Your task to perform on an android device: Open ESPN.com Image 0: 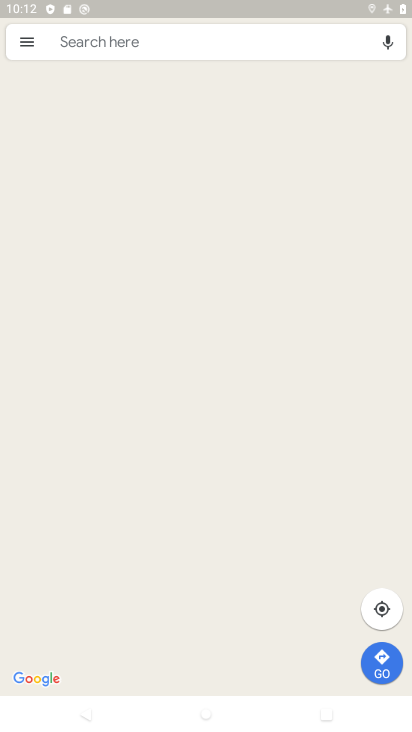
Step 0: press home button
Your task to perform on an android device: Open ESPN.com Image 1: 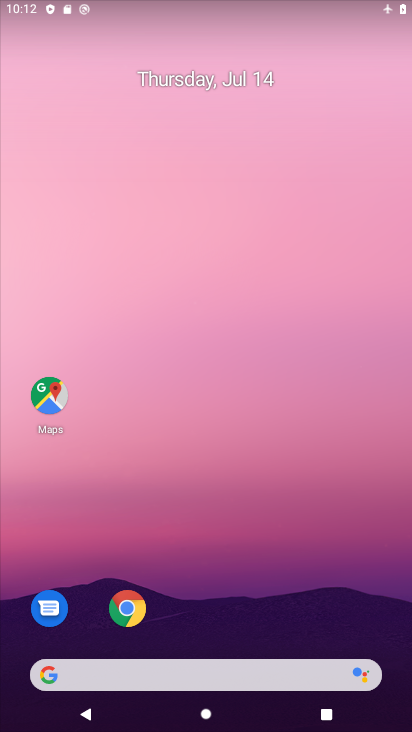
Step 1: click (131, 614)
Your task to perform on an android device: Open ESPN.com Image 2: 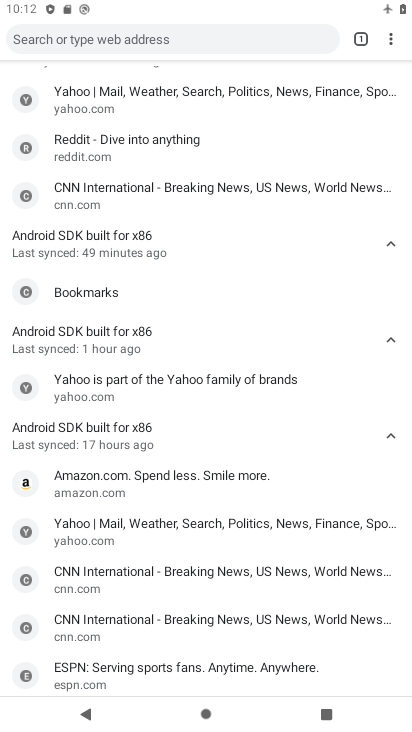
Step 2: click (184, 39)
Your task to perform on an android device: Open ESPN.com Image 3: 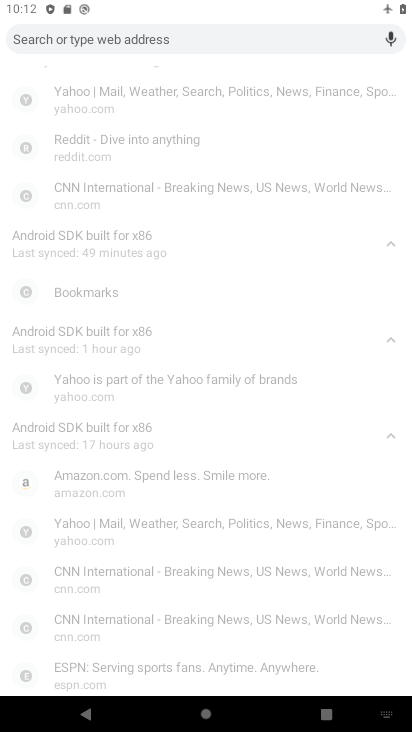
Step 3: type "ESPN.com"
Your task to perform on an android device: Open ESPN.com Image 4: 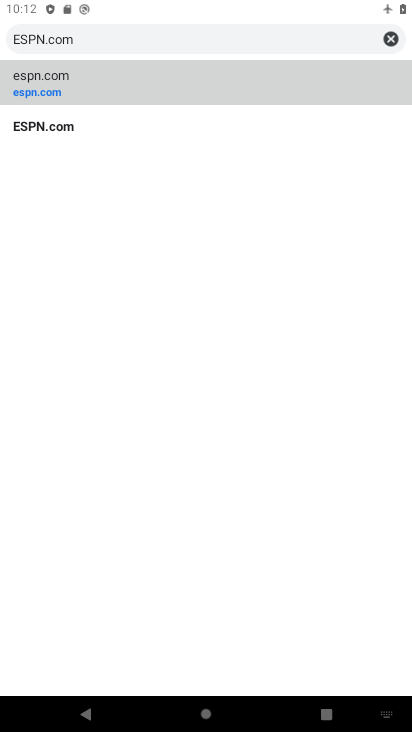
Step 4: click (96, 90)
Your task to perform on an android device: Open ESPN.com Image 5: 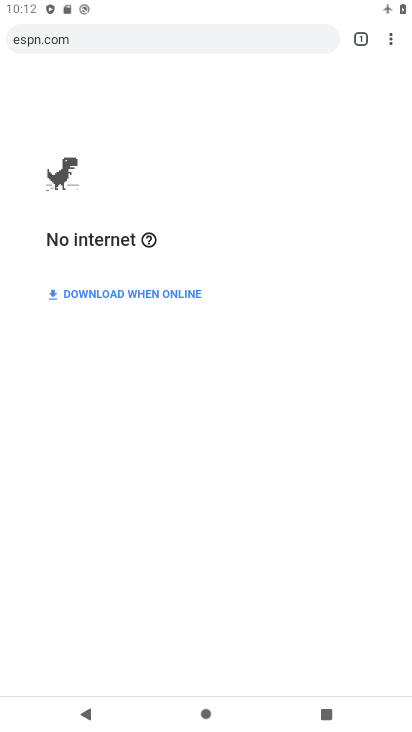
Step 5: task complete